Your task to perform on an android device: Open Amazon Image 0: 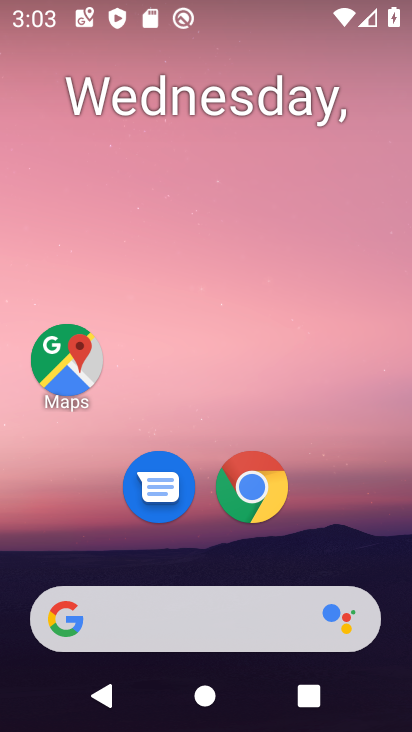
Step 0: drag from (255, 586) to (267, 66)
Your task to perform on an android device: Open Amazon Image 1: 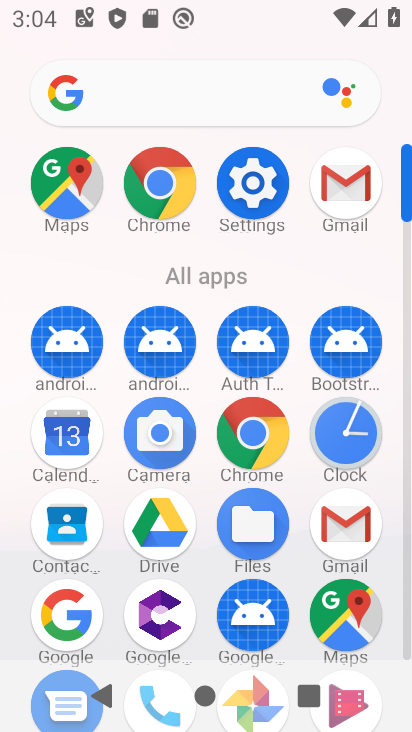
Step 1: click (269, 440)
Your task to perform on an android device: Open Amazon Image 2: 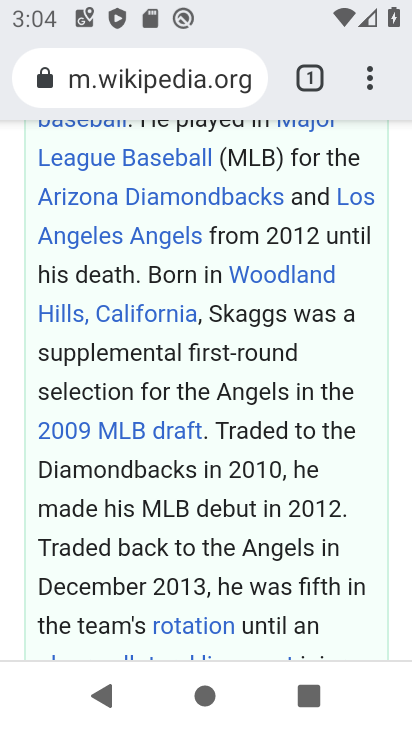
Step 2: click (222, 93)
Your task to perform on an android device: Open Amazon Image 3: 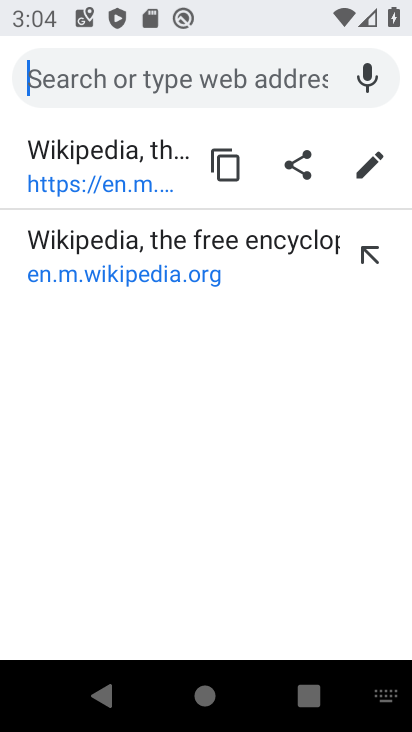
Step 3: type "amazon"
Your task to perform on an android device: Open Amazon Image 4: 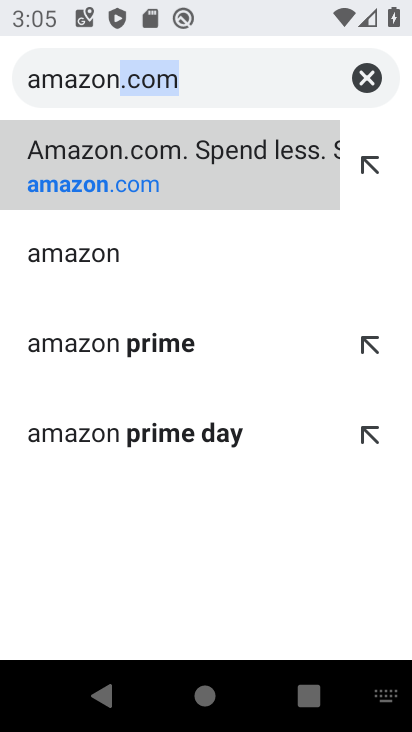
Step 4: click (231, 175)
Your task to perform on an android device: Open Amazon Image 5: 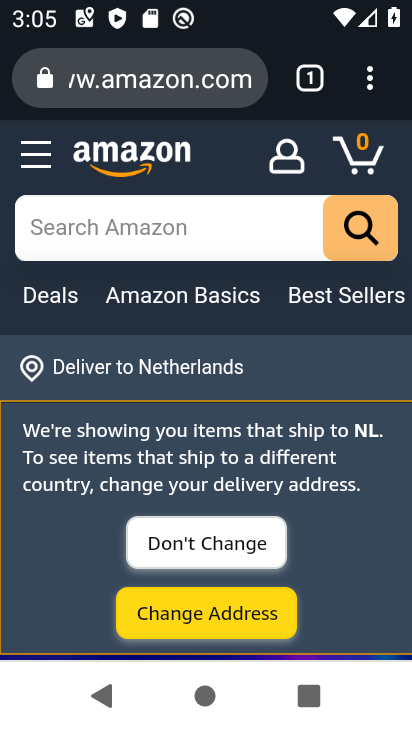
Step 5: task complete